Your task to perform on an android device: toggle location history Image 0: 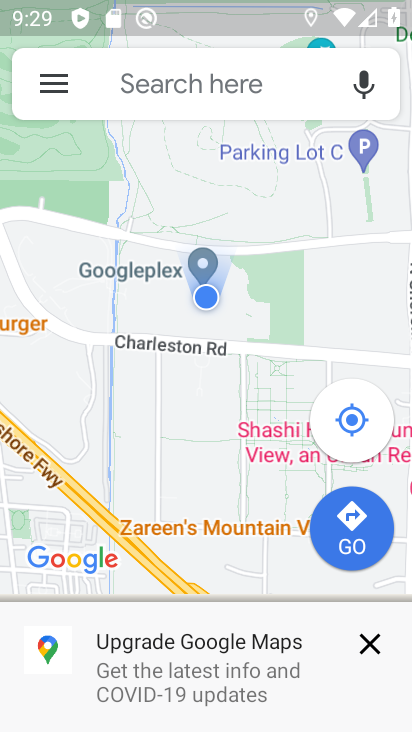
Step 0: press home button
Your task to perform on an android device: toggle location history Image 1: 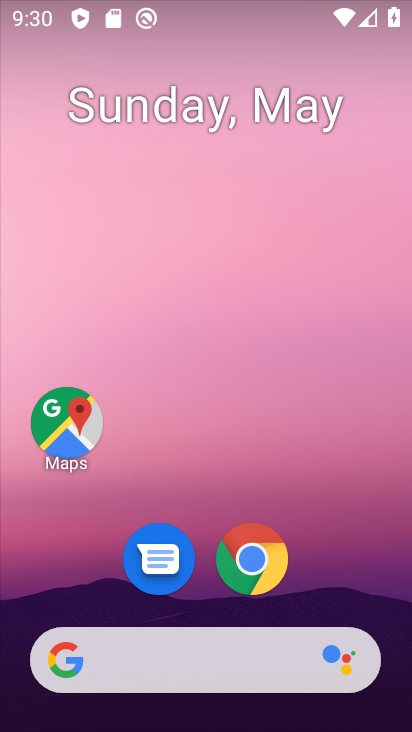
Step 1: drag from (317, 603) to (303, 0)
Your task to perform on an android device: toggle location history Image 2: 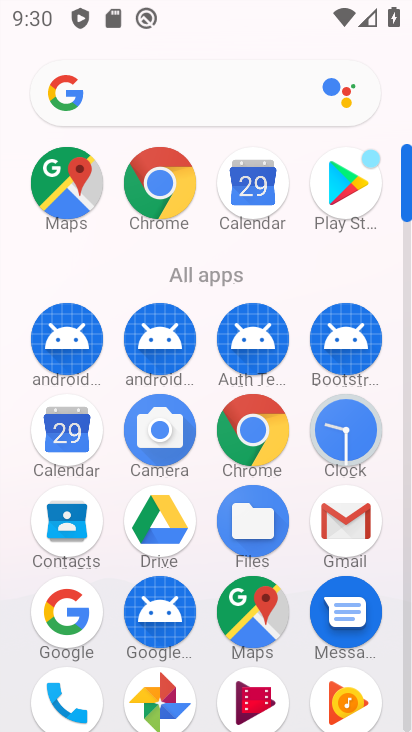
Step 2: drag from (392, 643) to (371, 220)
Your task to perform on an android device: toggle location history Image 3: 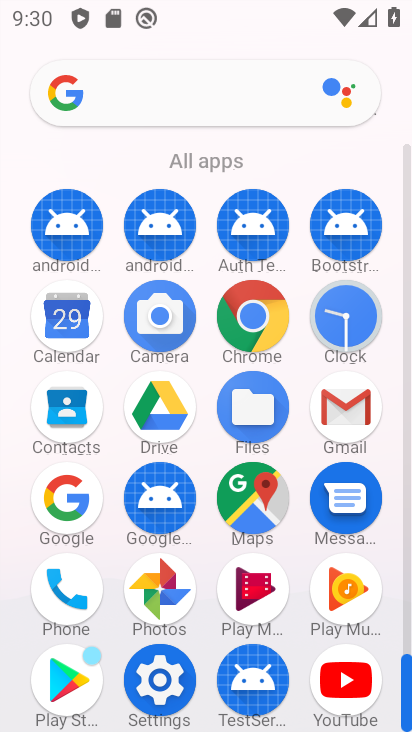
Step 3: click (147, 683)
Your task to perform on an android device: toggle location history Image 4: 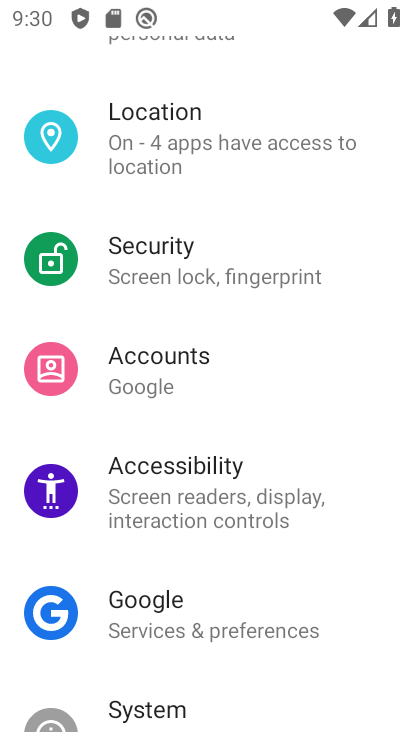
Step 4: click (162, 119)
Your task to perform on an android device: toggle location history Image 5: 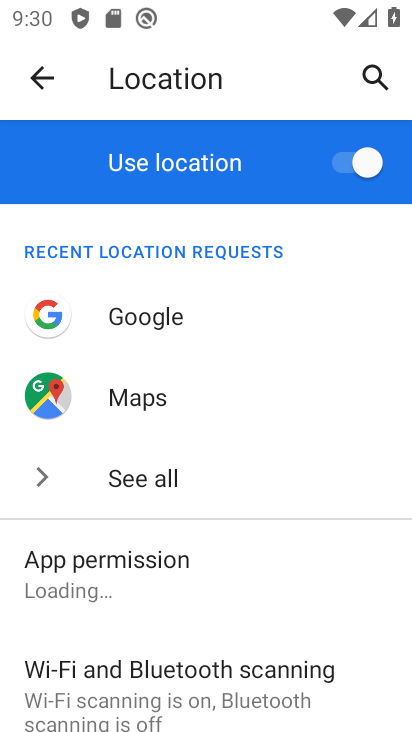
Step 5: drag from (312, 591) to (310, 141)
Your task to perform on an android device: toggle location history Image 6: 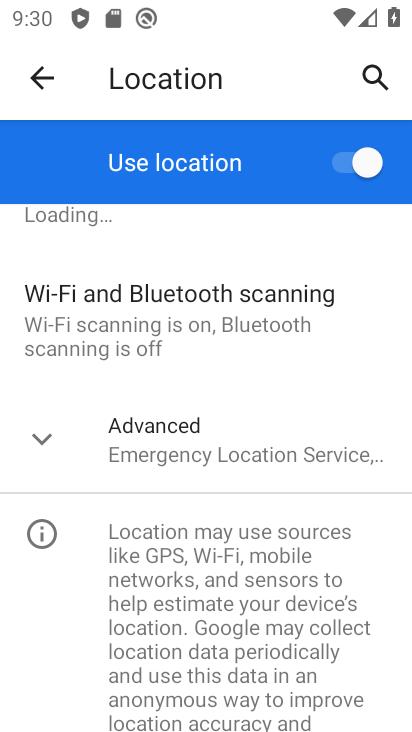
Step 6: click (186, 457)
Your task to perform on an android device: toggle location history Image 7: 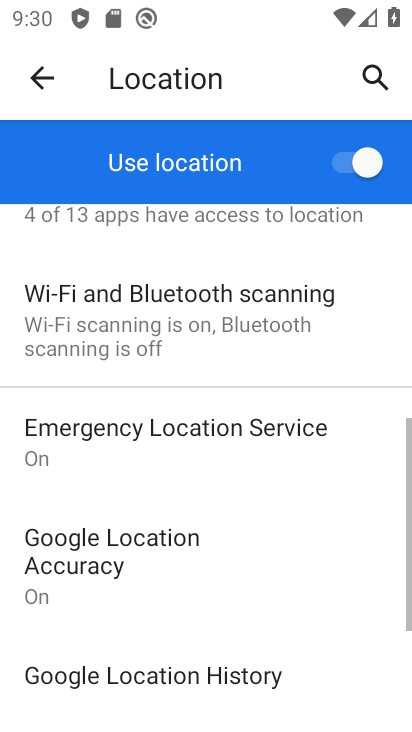
Step 7: drag from (353, 686) to (357, 239)
Your task to perform on an android device: toggle location history Image 8: 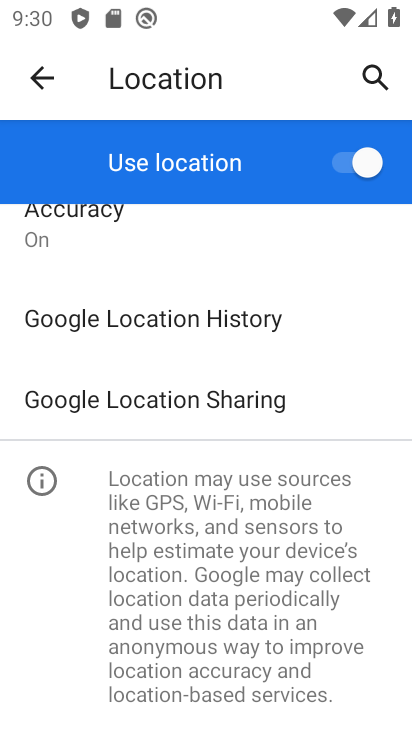
Step 8: drag from (334, 239) to (304, 580)
Your task to perform on an android device: toggle location history Image 9: 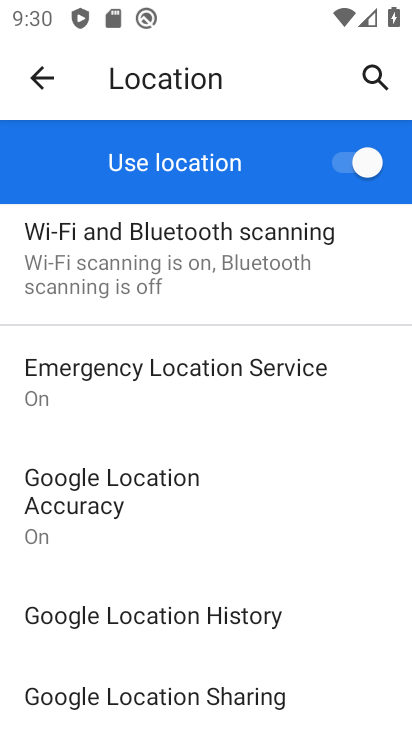
Step 9: click (213, 616)
Your task to perform on an android device: toggle location history Image 10: 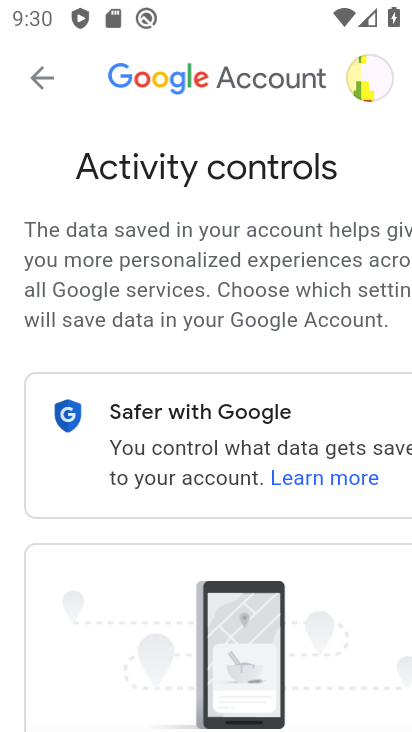
Step 10: drag from (356, 601) to (336, 94)
Your task to perform on an android device: toggle location history Image 11: 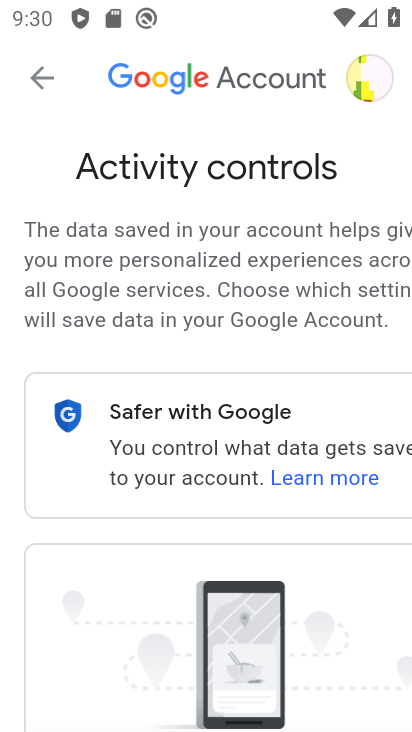
Step 11: drag from (352, 579) to (352, 12)
Your task to perform on an android device: toggle location history Image 12: 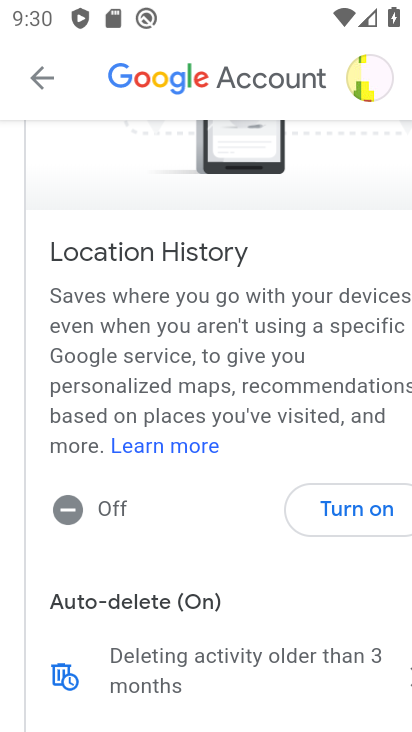
Step 12: click (354, 514)
Your task to perform on an android device: toggle location history Image 13: 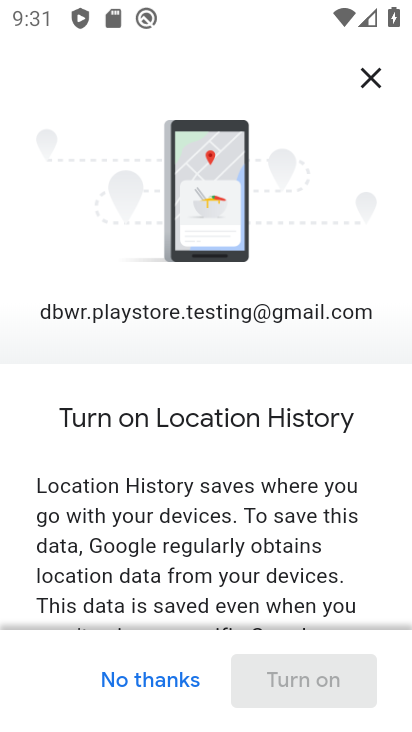
Step 13: task complete